Your task to perform on an android device: add a contact in the contacts app Image 0: 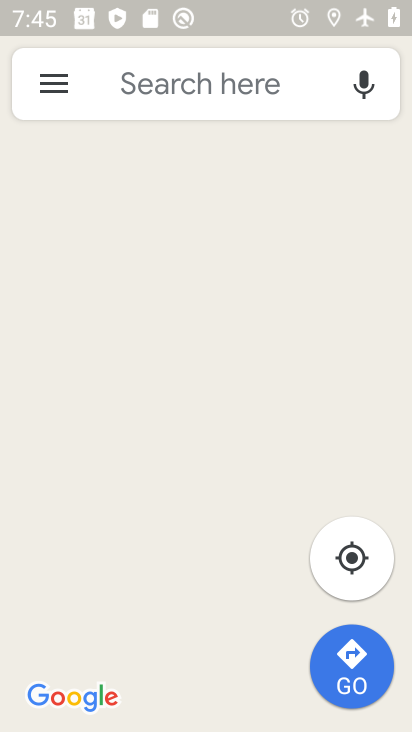
Step 0: press back button
Your task to perform on an android device: add a contact in the contacts app Image 1: 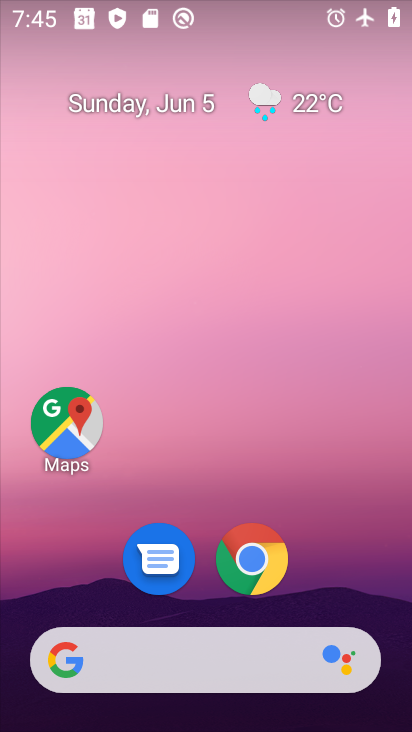
Step 1: drag from (340, 569) to (226, 188)
Your task to perform on an android device: add a contact in the contacts app Image 2: 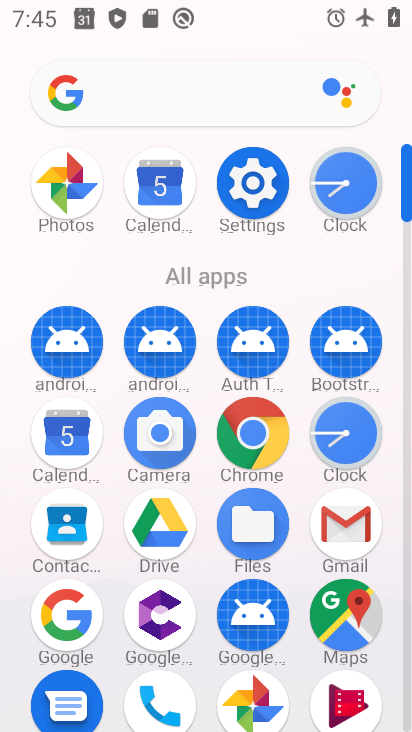
Step 2: click (68, 525)
Your task to perform on an android device: add a contact in the contacts app Image 3: 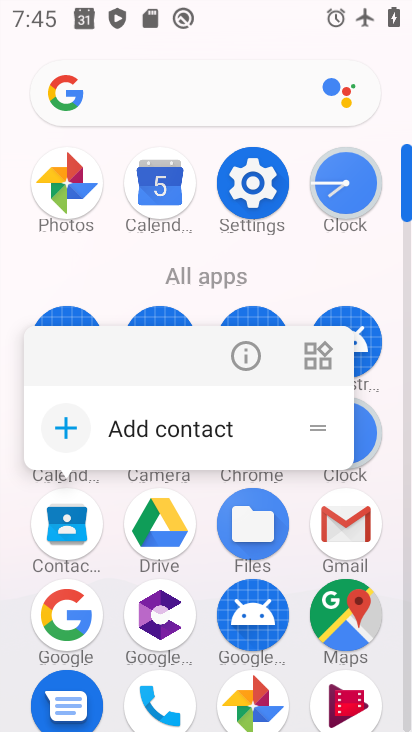
Step 3: click (68, 525)
Your task to perform on an android device: add a contact in the contacts app Image 4: 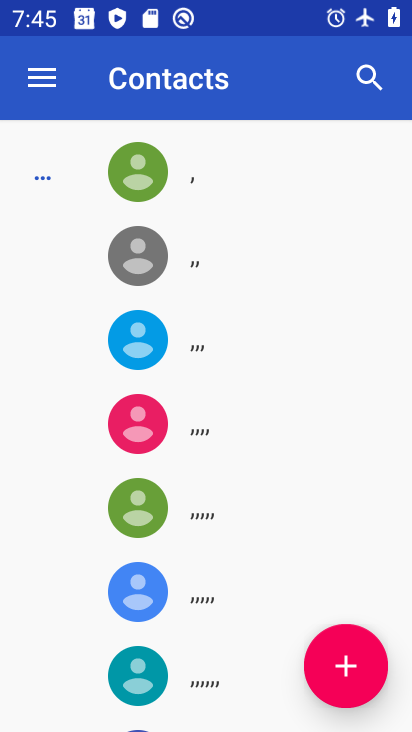
Step 4: click (345, 667)
Your task to perform on an android device: add a contact in the contacts app Image 5: 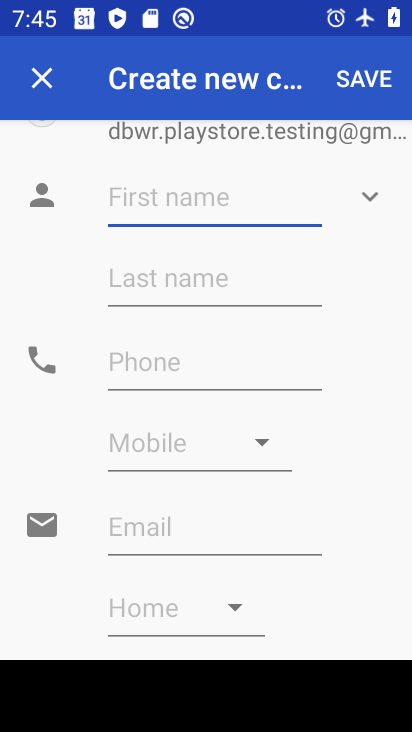
Step 5: type "Subhramanyam"
Your task to perform on an android device: add a contact in the contacts app Image 6: 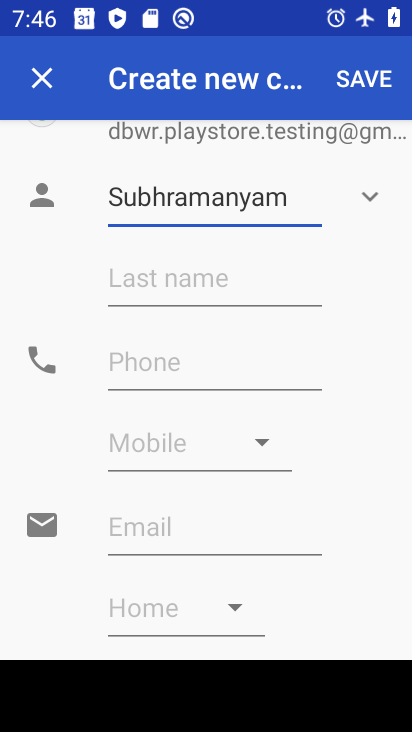
Step 6: click (270, 320)
Your task to perform on an android device: add a contact in the contacts app Image 7: 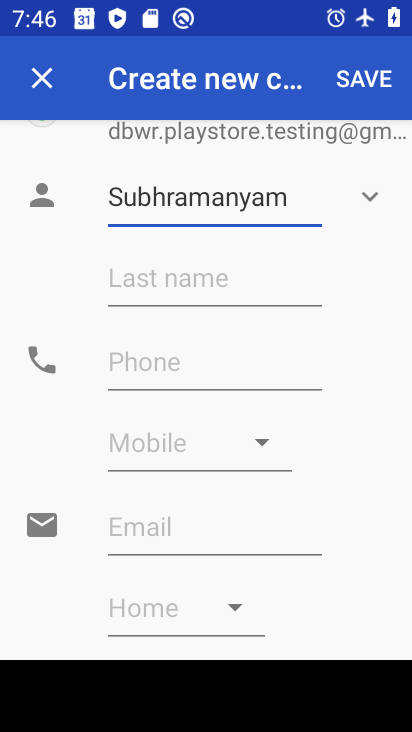
Step 7: click (268, 296)
Your task to perform on an android device: add a contact in the contacts app Image 8: 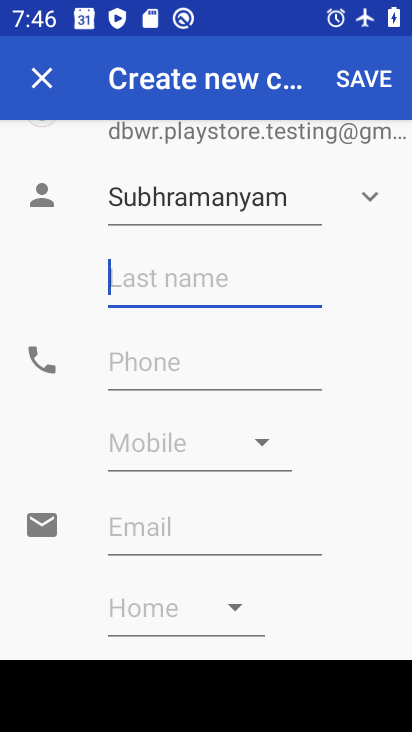
Step 8: type "Reddy"
Your task to perform on an android device: add a contact in the contacts app Image 9: 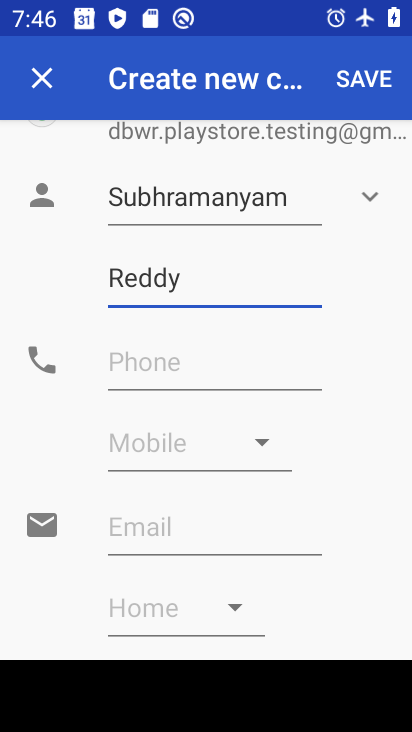
Step 9: click (164, 355)
Your task to perform on an android device: add a contact in the contacts app Image 10: 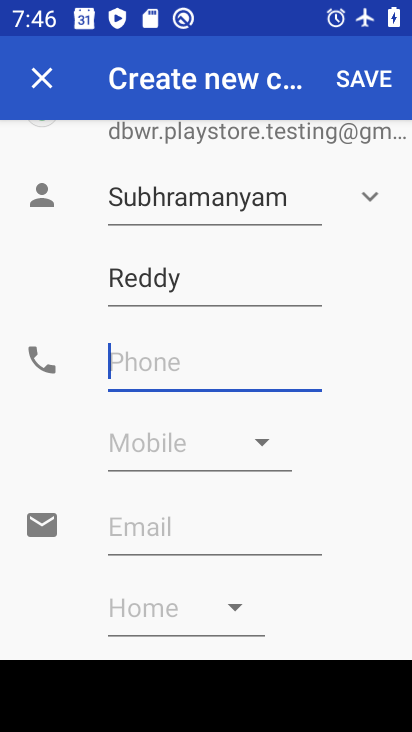
Step 10: type "0987654321"
Your task to perform on an android device: add a contact in the contacts app Image 11: 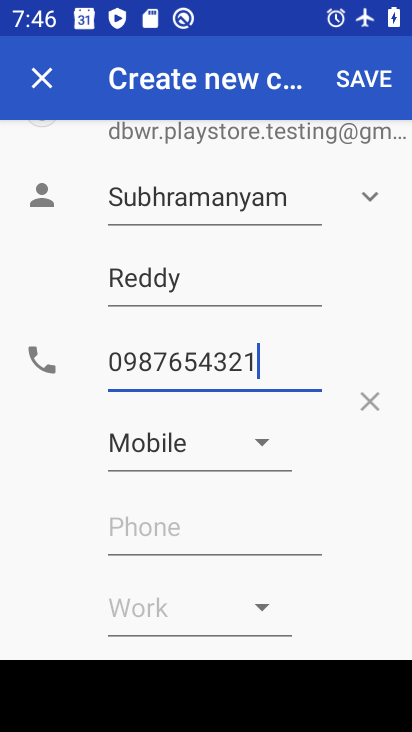
Step 11: click (367, 77)
Your task to perform on an android device: add a contact in the contacts app Image 12: 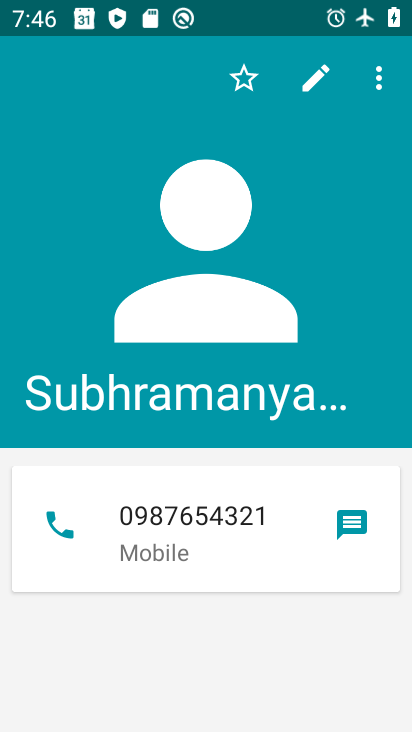
Step 12: task complete